Your task to perform on an android device: turn off wifi Image 0: 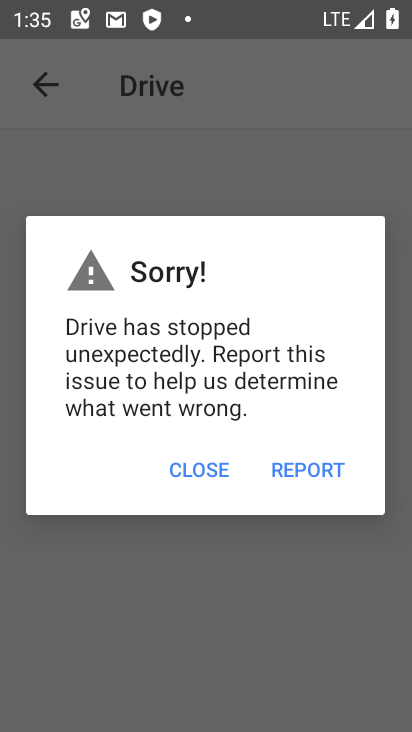
Step 0: press home button
Your task to perform on an android device: turn off wifi Image 1: 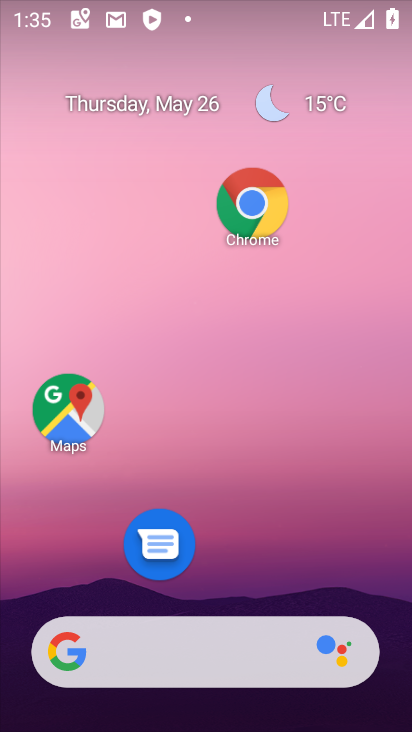
Step 1: drag from (240, 720) to (336, 3)
Your task to perform on an android device: turn off wifi Image 2: 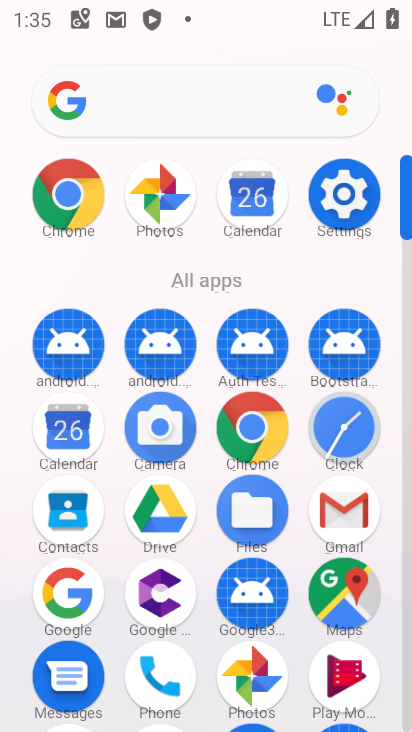
Step 2: click (345, 192)
Your task to perform on an android device: turn off wifi Image 3: 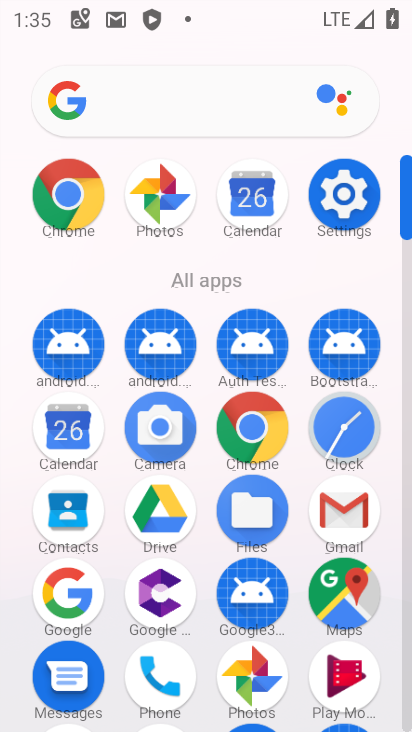
Step 3: click (335, 208)
Your task to perform on an android device: turn off wifi Image 4: 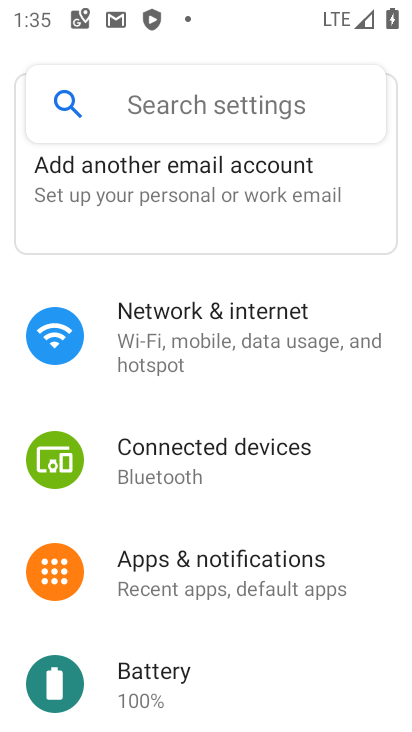
Step 4: click (289, 343)
Your task to perform on an android device: turn off wifi Image 5: 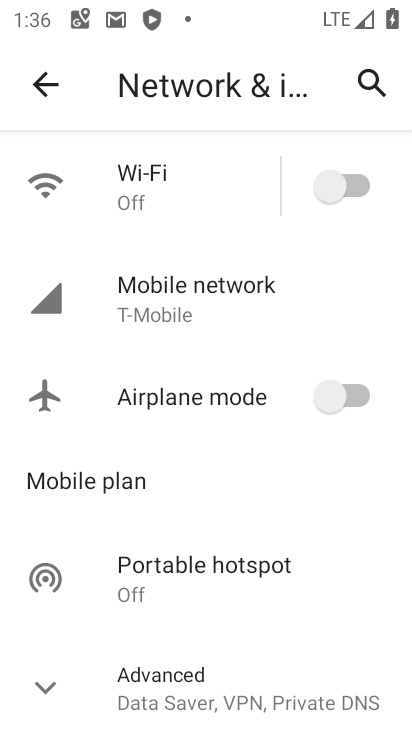
Step 5: task complete